Your task to perform on an android device: turn off notifications in google photos Image 0: 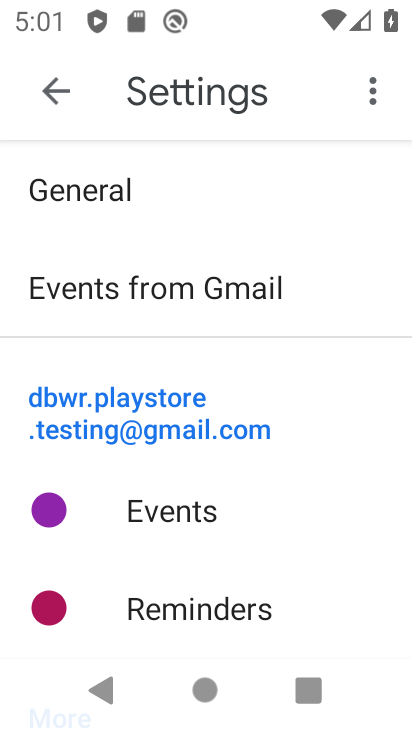
Step 0: click (46, 95)
Your task to perform on an android device: turn off notifications in google photos Image 1: 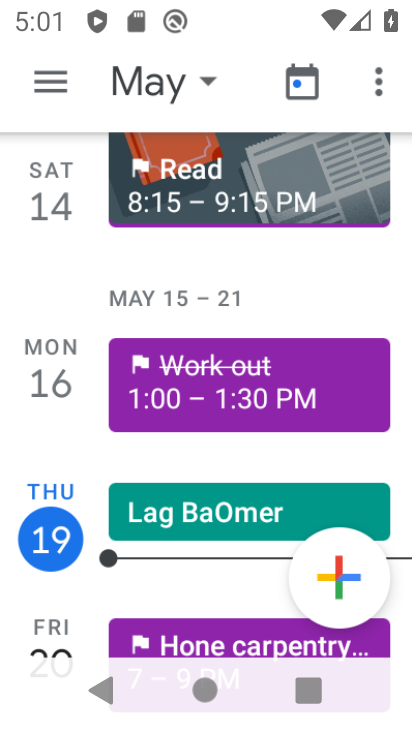
Step 1: click (46, 95)
Your task to perform on an android device: turn off notifications in google photos Image 2: 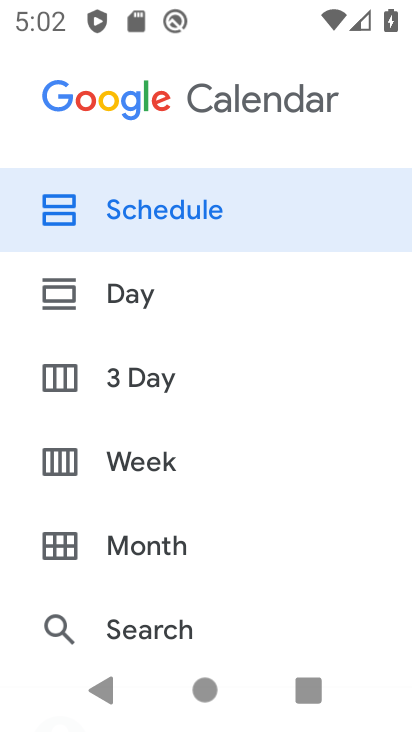
Step 2: press back button
Your task to perform on an android device: turn off notifications in google photos Image 3: 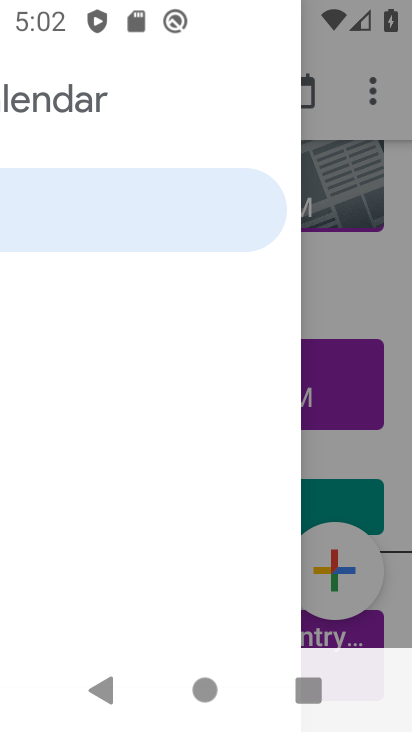
Step 3: press back button
Your task to perform on an android device: turn off notifications in google photos Image 4: 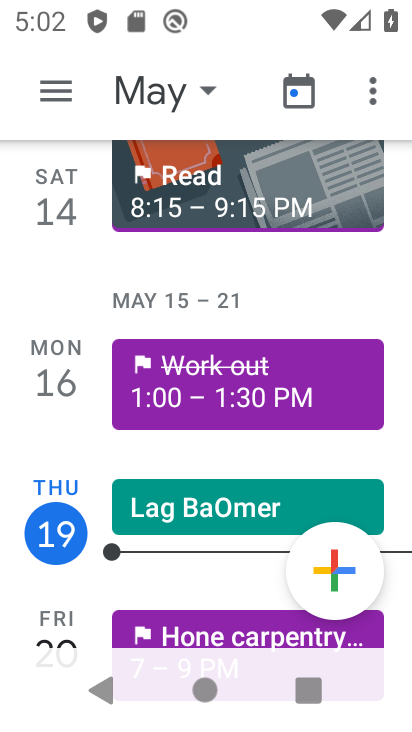
Step 4: press back button
Your task to perform on an android device: turn off notifications in google photos Image 5: 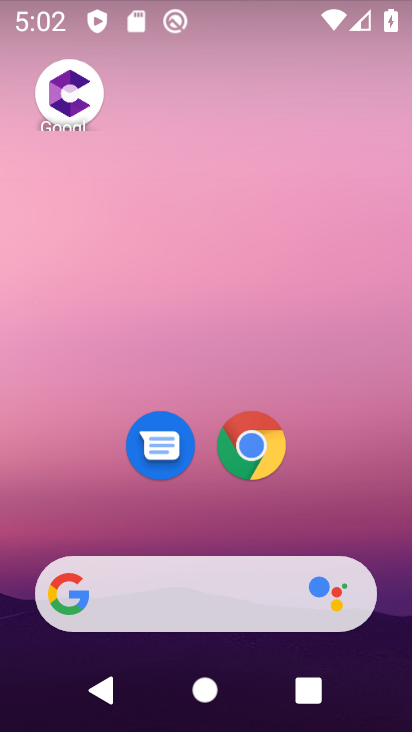
Step 5: drag from (246, 515) to (248, 166)
Your task to perform on an android device: turn off notifications in google photos Image 6: 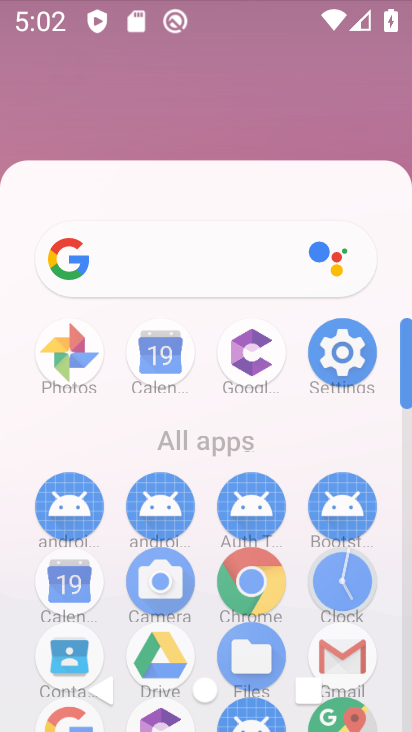
Step 6: drag from (300, 585) to (250, 110)
Your task to perform on an android device: turn off notifications in google photos Image 7: 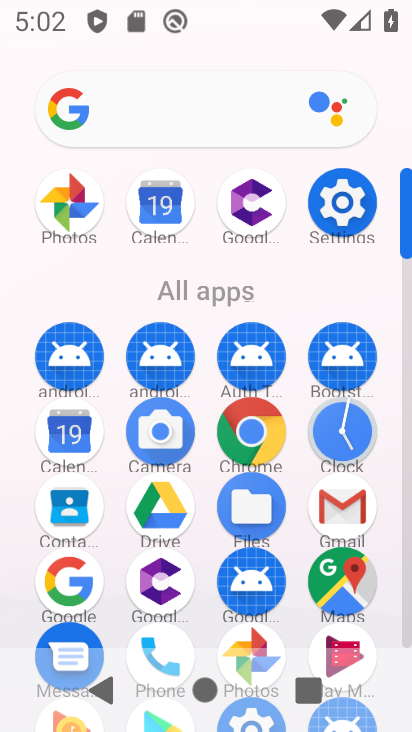
Step 7: drag from (197, 557) to (201, 290)
Your task to perform on an android device: turn off notifications in google photos Image 8: 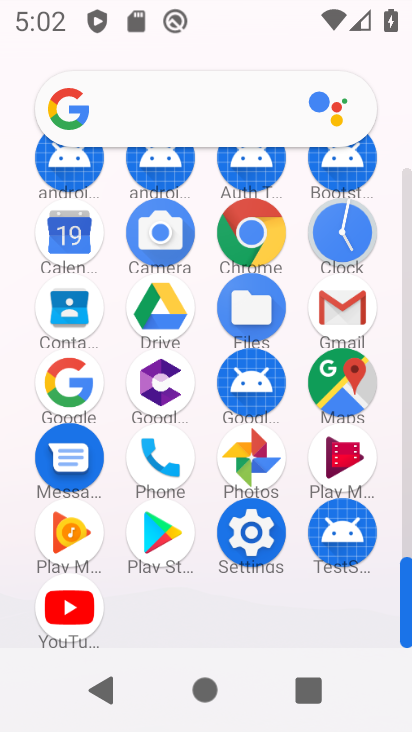
Step 8: click (77, 202)
Your task to perform on an android device: turn off notifications in google photos Image 9: 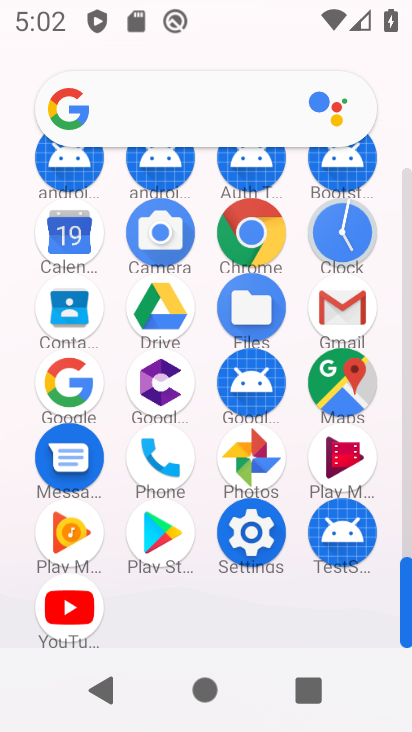
Step 9: click (77, 201)
Your task to perform on an android device: turn off notifications in google photos Image 10: 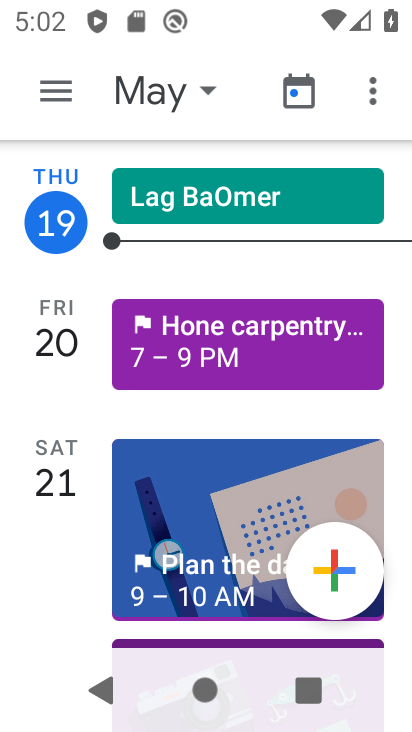
Step 10: click (257, 465)
Your task to perform on an android device: turn off notifications in google photos Image 11: 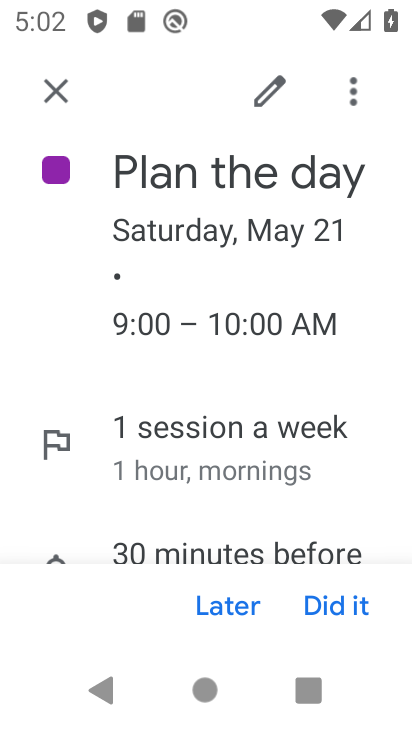
Step 11: press back button
Your task to perform on an android device: turn off notifications in google photos Image 12: 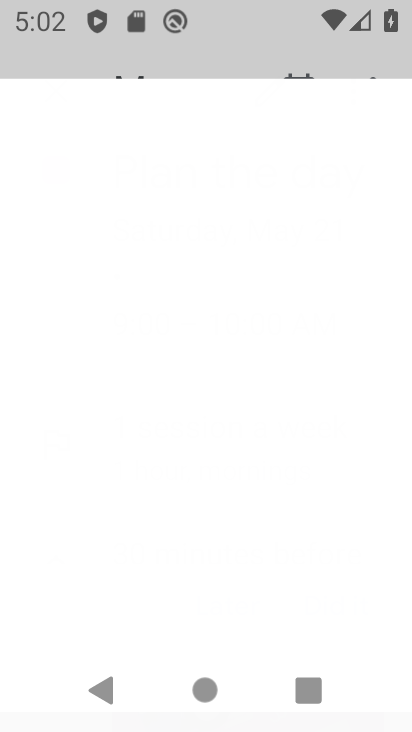
Step 12: press back button
Your task to perform on an android device: turn off notifications in google photos Image 13: 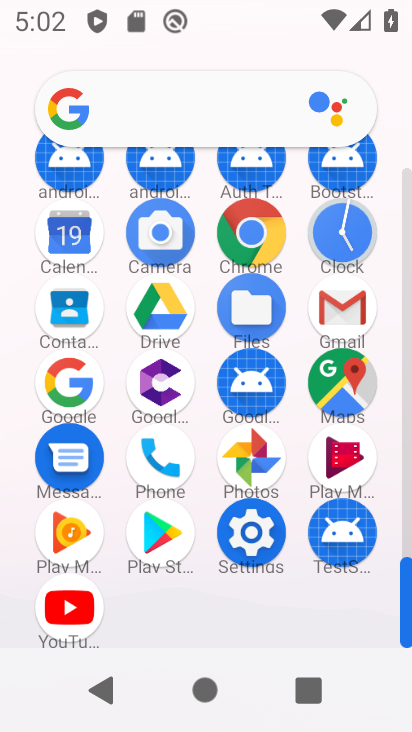
Step 13: click (254, 458)
Your task to perform on an android device: turn off notifications in google photos Image 14: 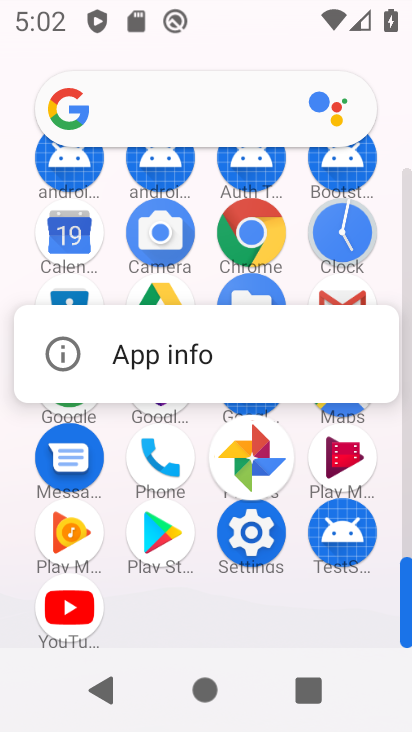
Step 14: click (253, 457)
Your task to perform on an android device: turn off notifications in google photos Image 15: 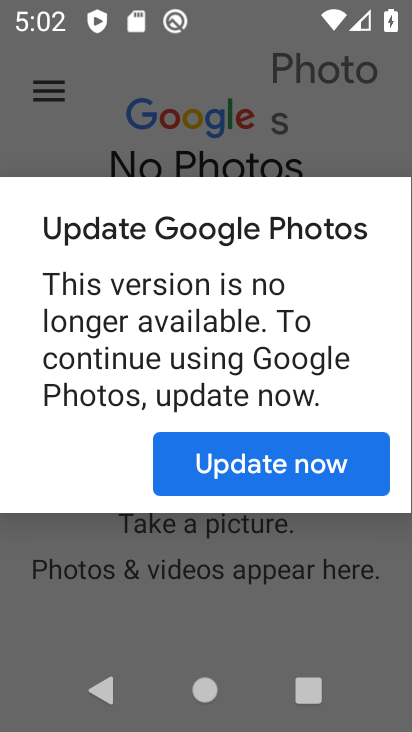
Step 15: click (264, 452)
Your task to perform on an android device: turn off notifications in google photos Image 16: 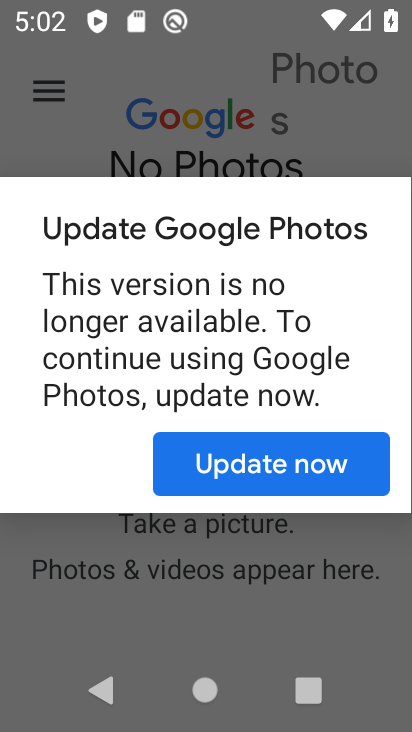
Step 16: click (264, 452)
Your task to perform on an android device: turn off notifications in google photos Image 17: 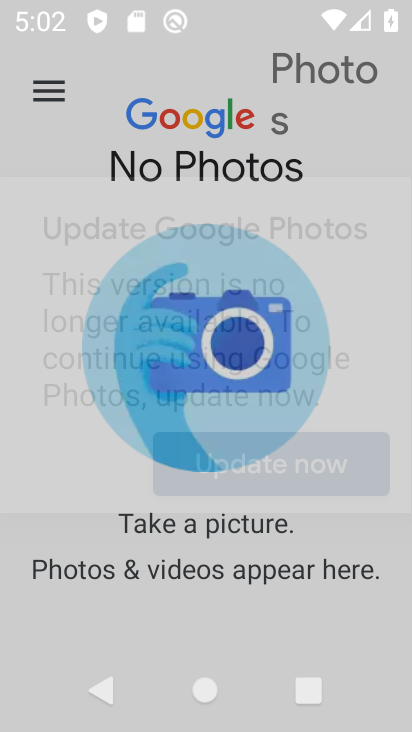
Step 17: drag from (266, 453) to (273, 488)
Your task to perform on an android device: turn off notifications in google photos Image 18: 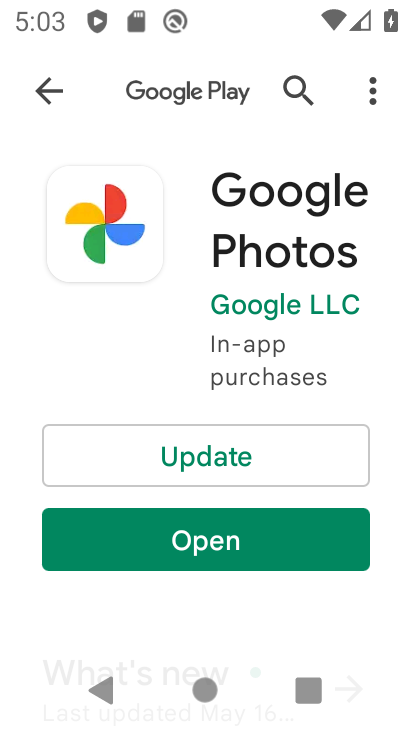
Step 18: click (212, 461)
Your task to perform on an android device: turn off notifications in google photos Image 19: 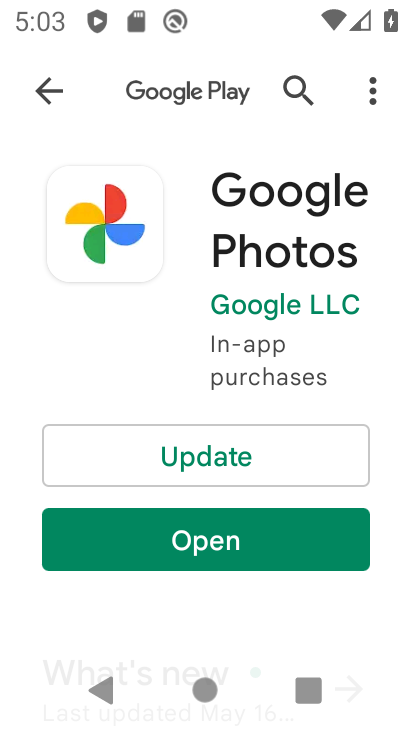
Step 19: click (211, 454)
Your task to perform on an android device: turn off notifications in google photos Image 20: 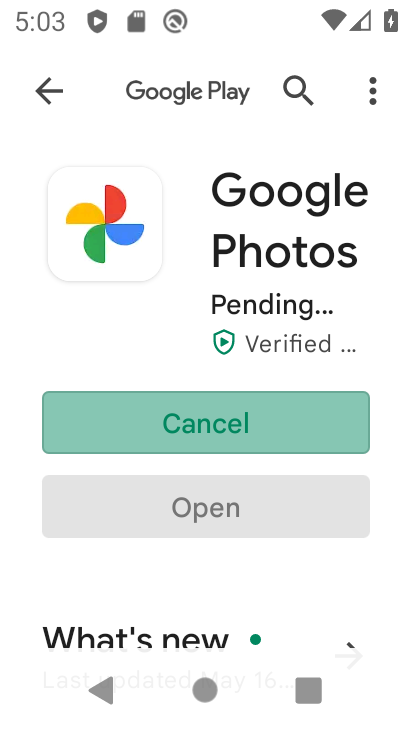
Step 20: click (210, 452)
Your task to perform on an android device: turn off notifications in google photos Image 21: 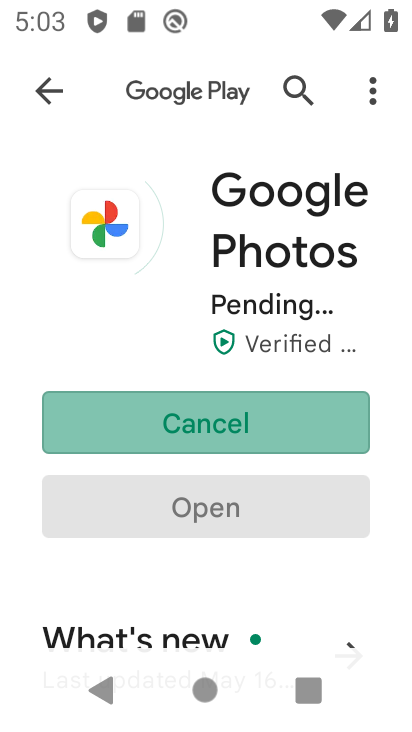
Step 21: click (217, 459)
Your task to perform on an android device: turn off notifications in google photos Image 22: 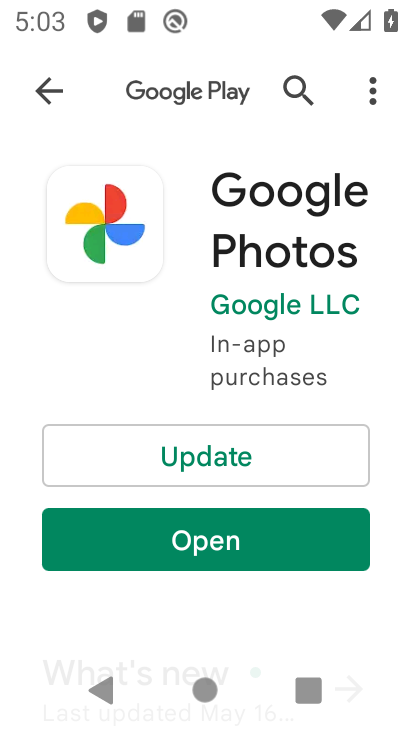
Step 22: click (206, 542)
Your task to perform on an android device: turn off notifications in google photos Image 23: 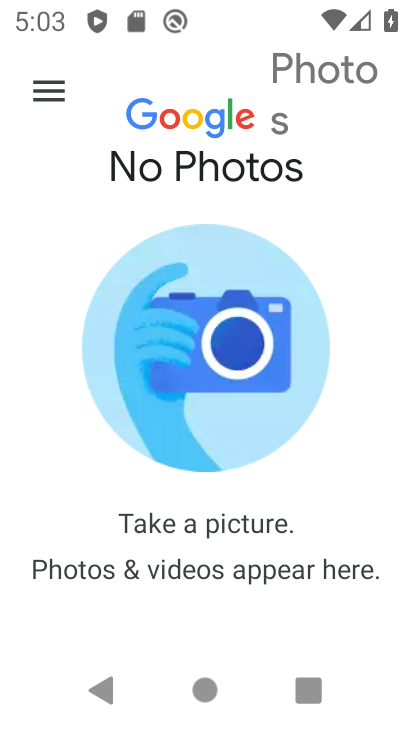
Step 23: task complete